Your task to perform on an android device: change the clock display to digital Image 0: 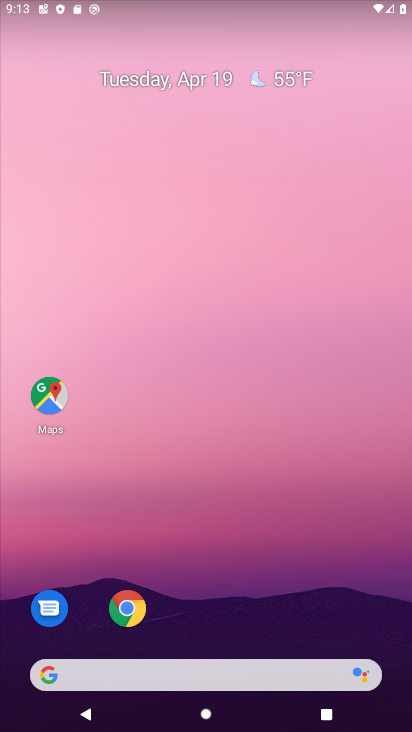
Step 0: drag from (303, 328) to (365, 21)
Your task to perform on an android device: change the clock display to digital Image 1: 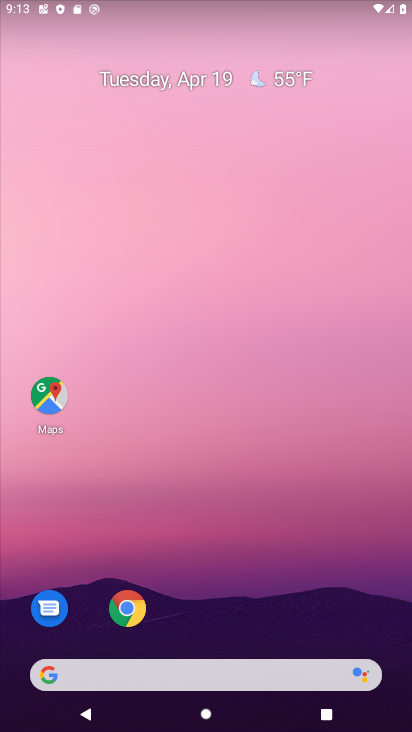
Step 1: drag from (236, 632) to (352, 81)
Your task to perform on an android device: change the clock display to digital Image 2: 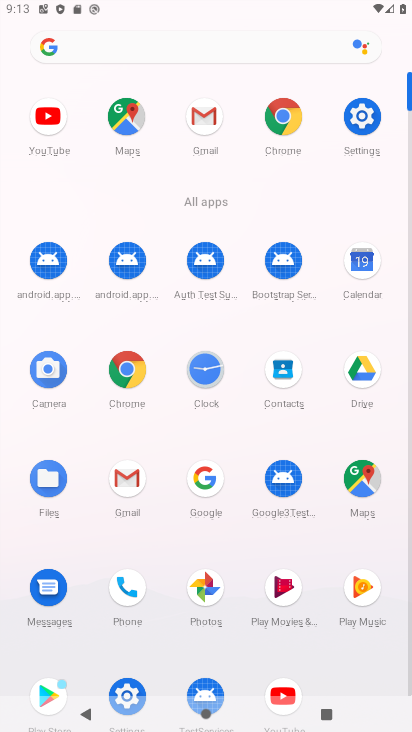
Step 2: click (205, 377)
Your task to perform on an android device: change the clock display to digital Image 3: 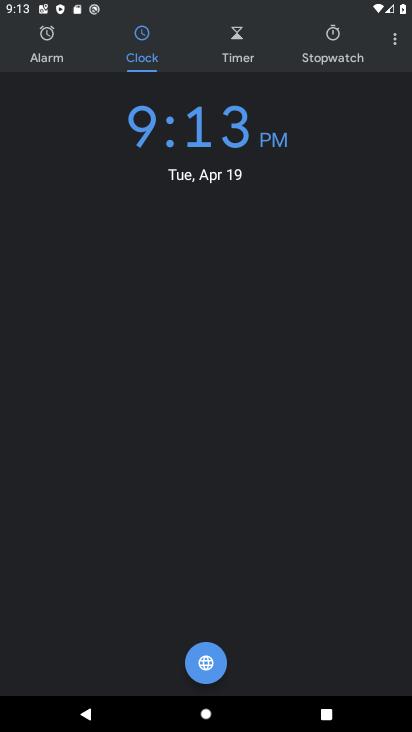
Step 3: click (394, 39)
Your task to perform on an android device: change the clock display to digital Image 4: 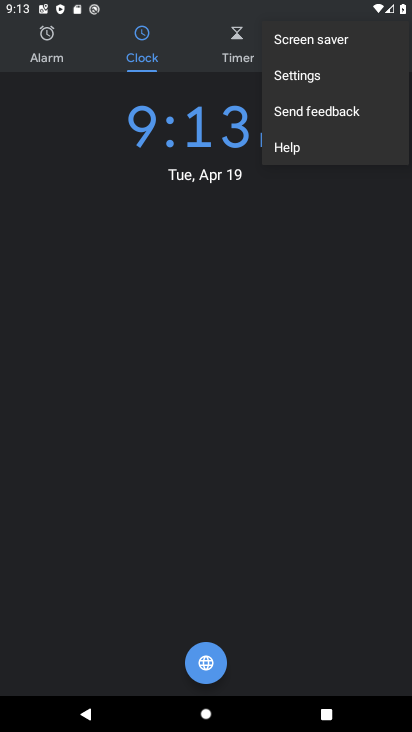
Step 4: click (368, 79)
Your task to perform on an android device: change the clock display to digital Image 5: 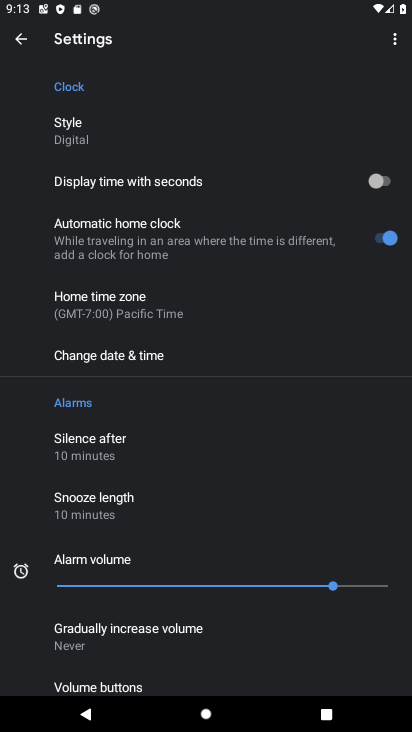
Step 5: task complete